Your task to perform on an android device: toggle wifi Image 0: 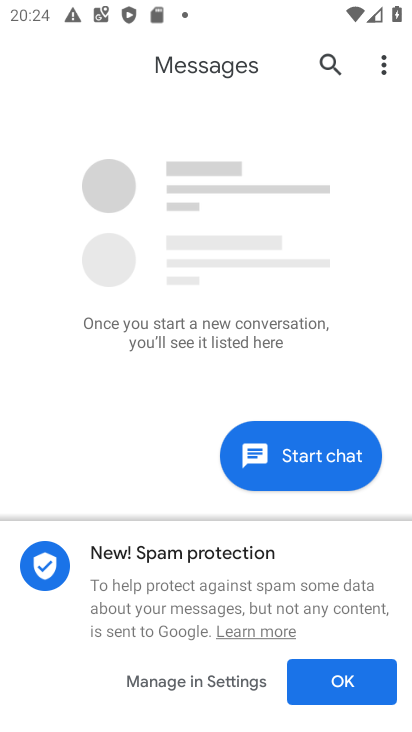
Step 0: press home button
Your task to perform on an android device: toggle wifi Image 1: 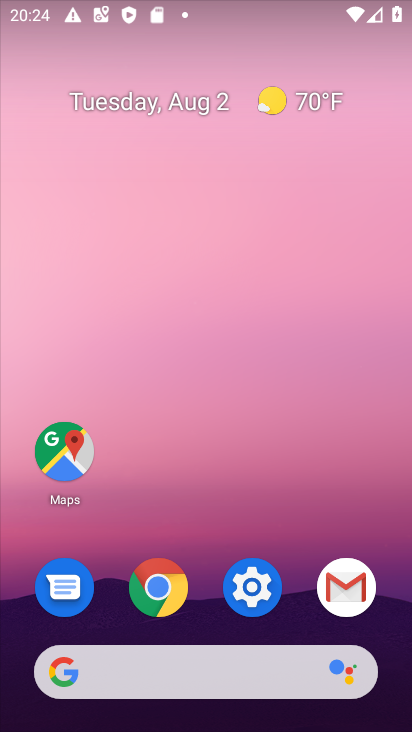
Step 1: drag from (235, 702) to (173, 138)
Your task to perform on an android device: toggle wifi Image 2: 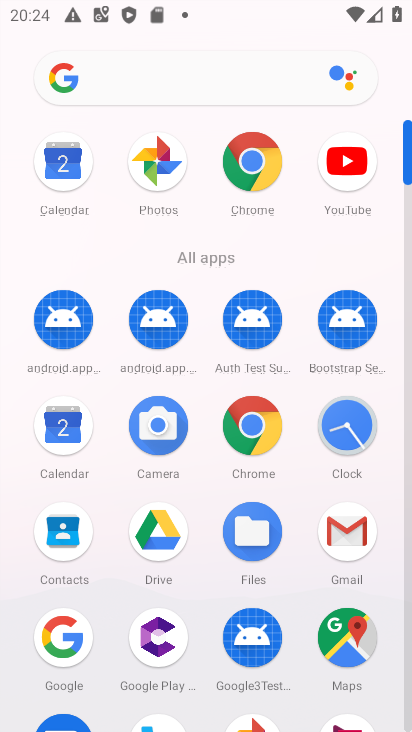
Step 2: click (342, 439)
Your task to perform on an android device: toggle wifi Image 3: 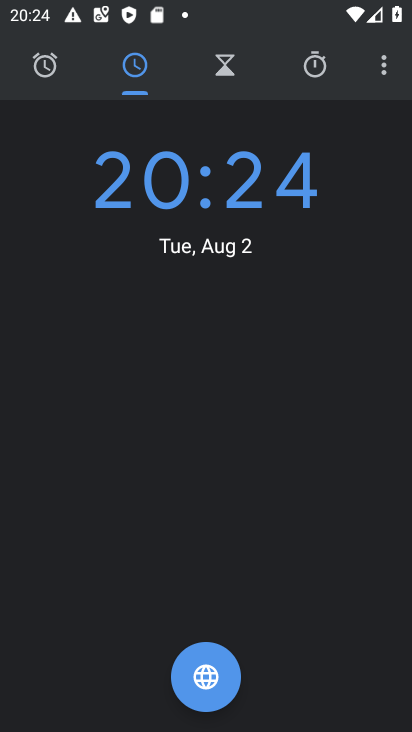
Step 3: press home button
Your task to perform on an android device: toggle wifi Image 4: 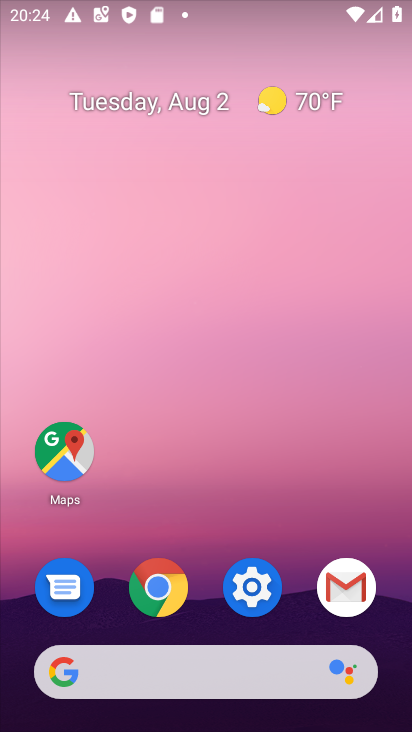
Step 4: click (253, 570)
Your task to perform on an android device: toggle wifi Image 5: 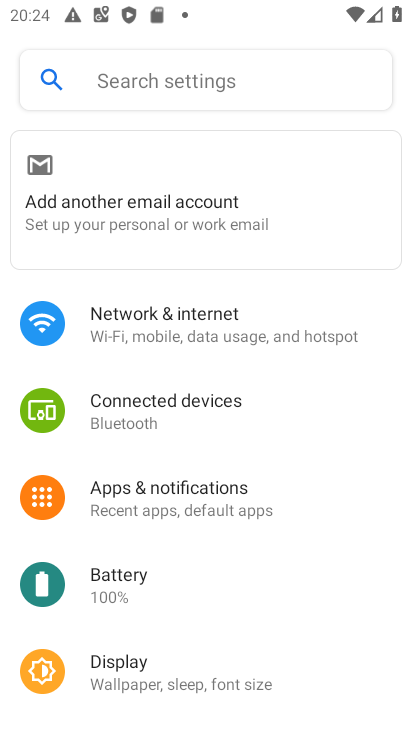
Step 5: click (140, 328)
Your task to perform on an android device: toggle wifi Image 6: 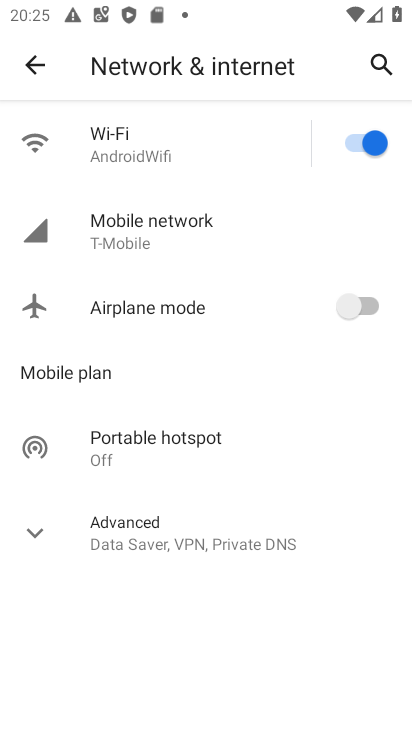
Step 6: click (121, 129)
Your task to perform on an android device: toggle wifi Image 7: 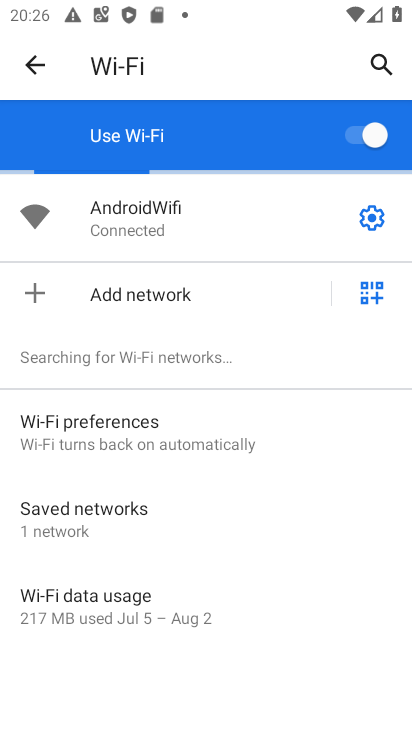
Step 7: task complete